Your task to perform on an android device: Open Google Maps Image 0: 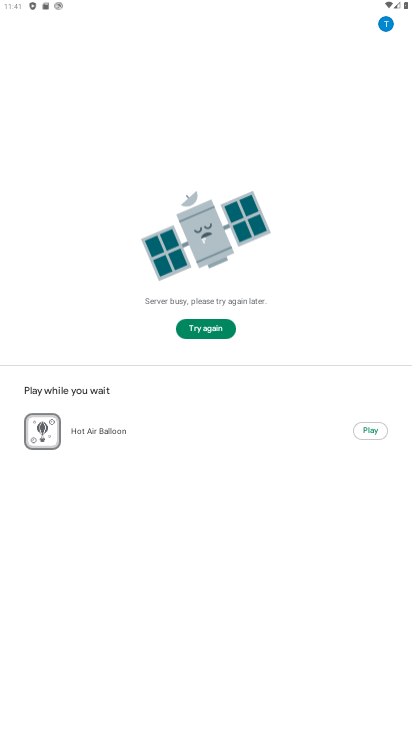
Step 0: task impossible